Your task to perform on an android device: Open display settings Image 0: 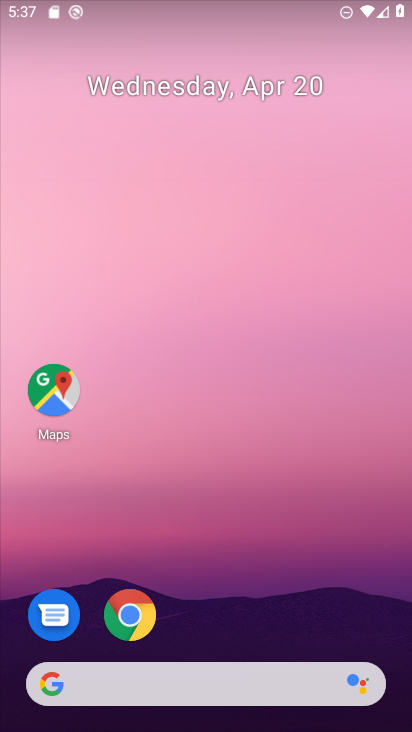
Step 0: drag from (171, 353) to (172, 11)
Your task to perform on an android device: Open display settings Image 1: 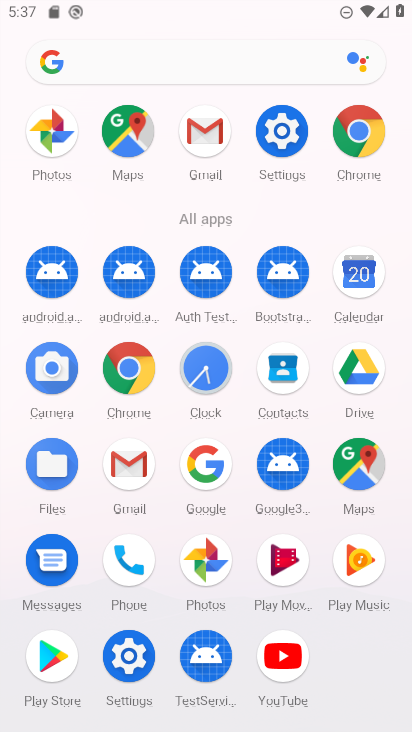
Step 1: click (137, 652)
Your task to perform on an android device: Open display settings Image 2: 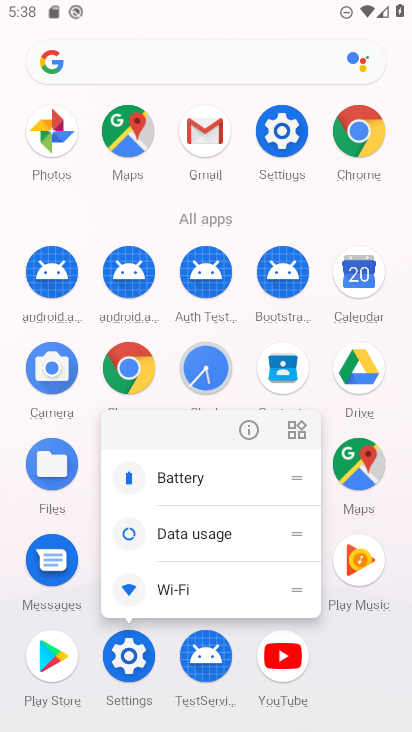
Step 2: click (136, 652)
Your task to perform on an android device: Open display settings Image 3: 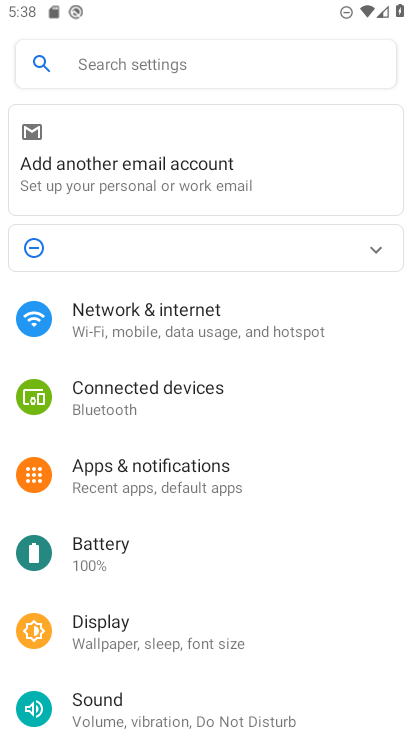
Step 3: click (106, 638)
Your task to perform on an android device: Open display settings Image 4: 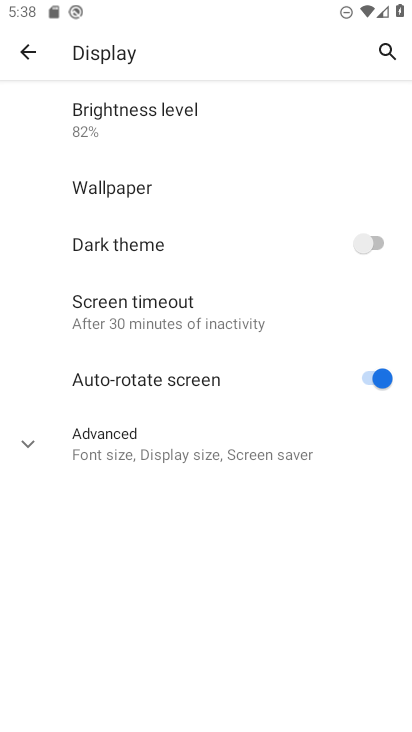
Step 4: task complete